Your task to perform on an android device: Open settings on Google Maps Image 0: 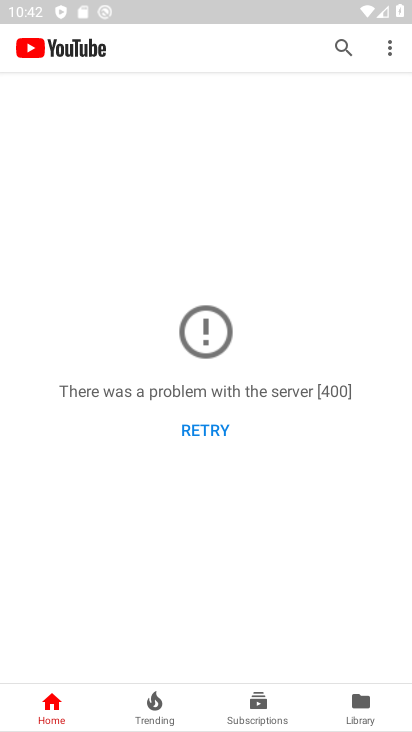
Step 0: press home button
Your task to perform on an android device: Open settings on Google Maps Image 1: 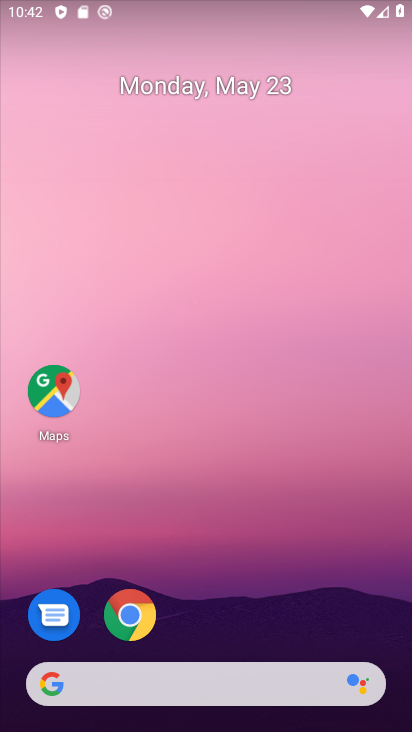
Step 1: click (71, 371)
Your task to perform on an android device: Open settings on Google Maps Image 2: 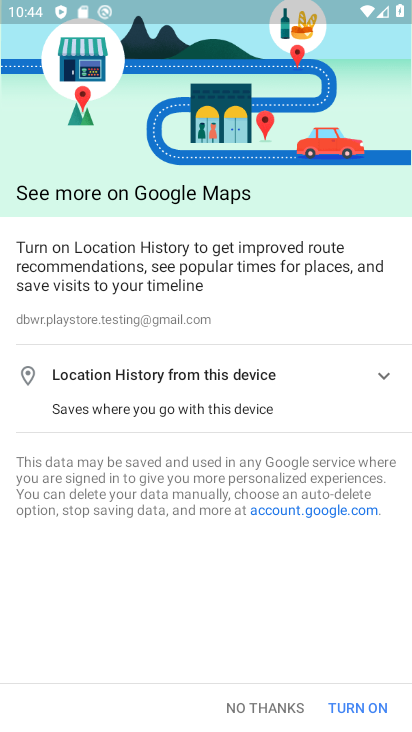
Step 2: click (362, 713)
Your task to perform on an android device: Open settings on Google Maps Image 3: 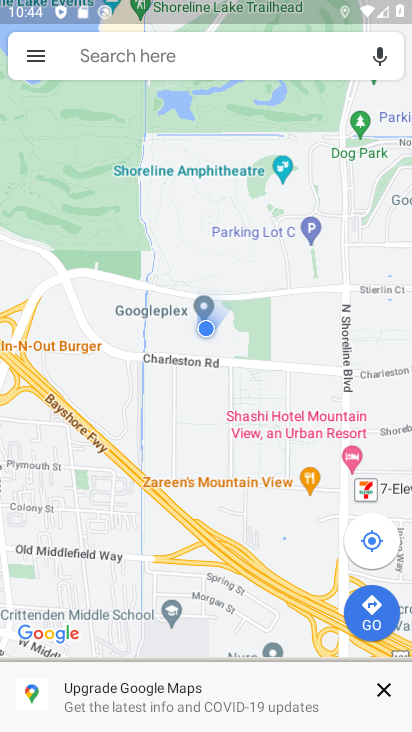
Step 3: click (35, 46)
Your task to perform on an android device: Open settings on Google Maps Image 4: 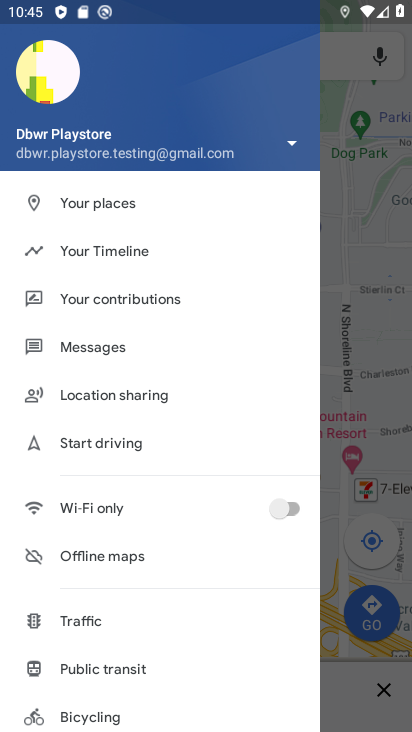
Step 4: drag from (39, 636) to (135, 78)
Your task to perform on an android device: Open settings on Google Maps Image 5: 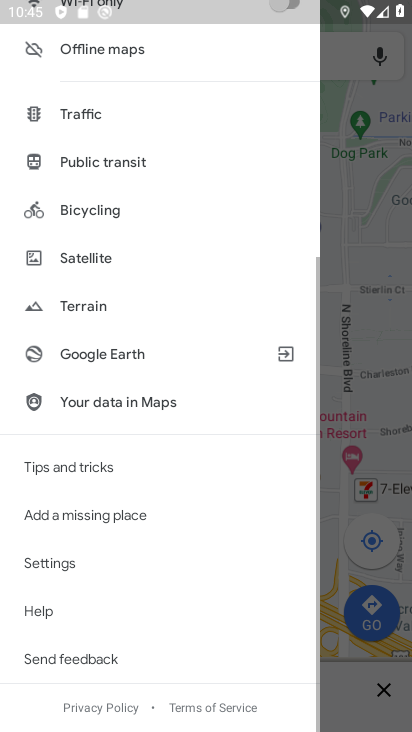
Step 5: click (131, 585)
Your task to perform on an android device: Open settings on Google Maps Image 6: 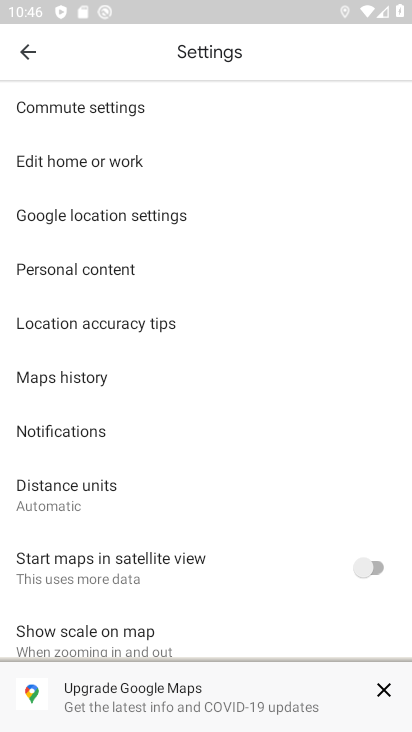
Step 6: task complete